Your task to perform on an android device: change keyboard looks Image 0: 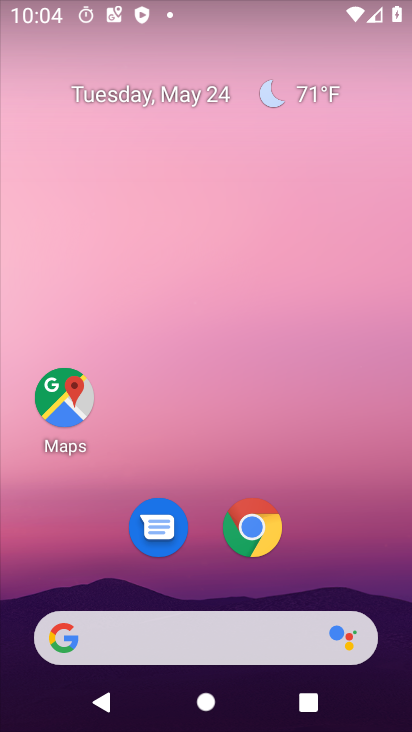
Step 0: drag from (199, 571) to (185, 104)
Your task to perform on an android device: change keyboard looks Image 1: 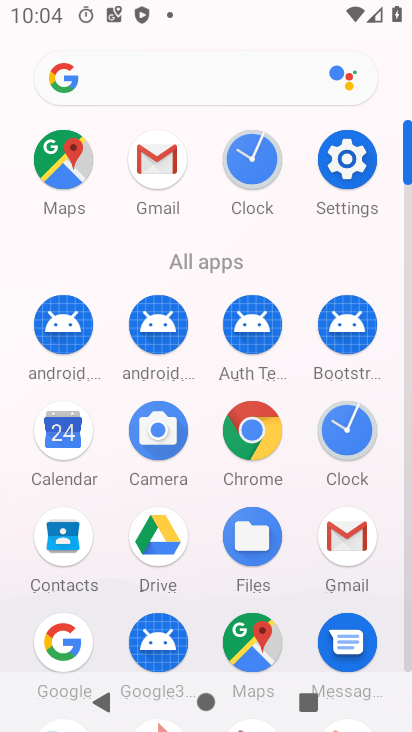
Step 1: click (349, 170)
Your task to perform on an android device: change keyboard looks Image 2: 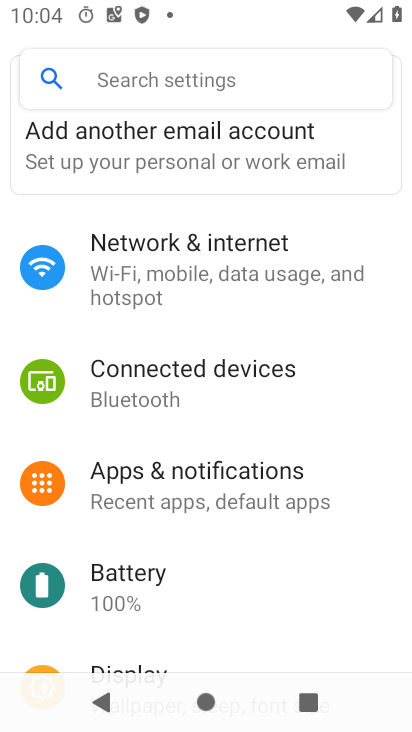
Step 2: drag from (275, 572) to (253, 54)
Your task to perform on an android device: change keyboard looks Image 3: 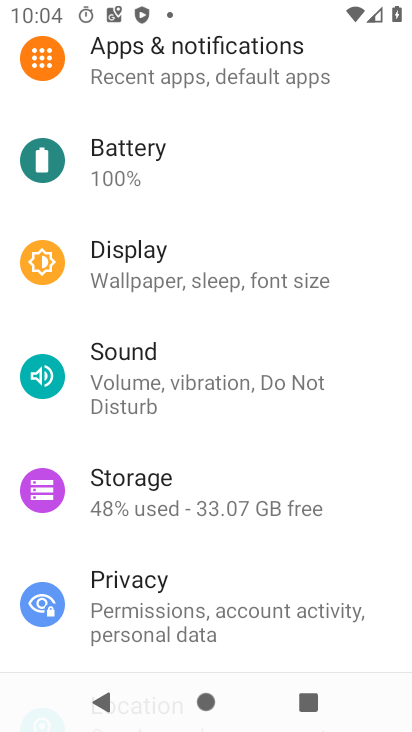
Step 3: drag from (199, 607) to (238, 71)
Your task to perform on an android device: change keyboard looks Image 4: 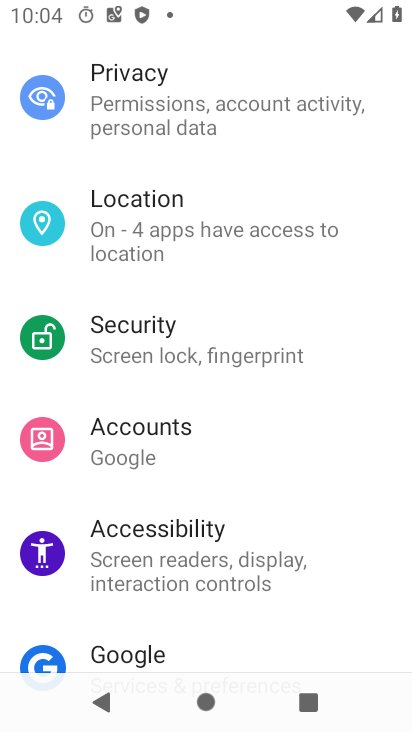
Step 4: drag from (242, 580) to (261, 110)
Your task to perform on an android device: change keyboard looks Image 5: 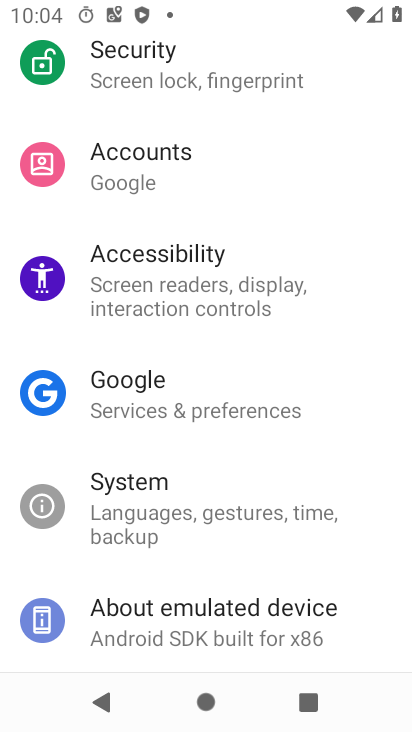
Step 5: click (130, 525)
Your task to perform on an android device: change keyboard looks Image 6: 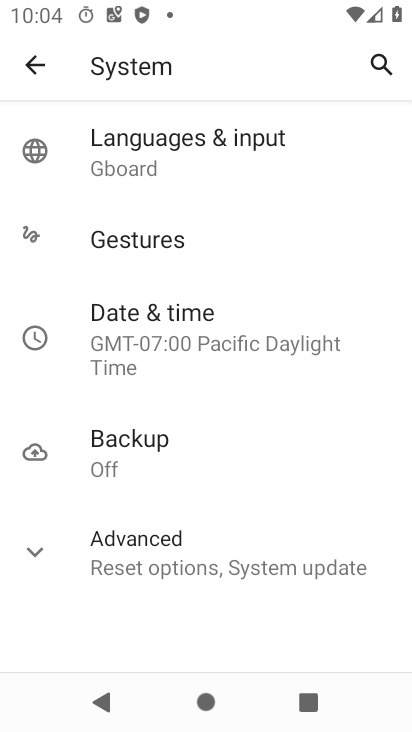
Step 6: click (163, 158)
Your task to perform on an android device: change keyboard looks Image 7: 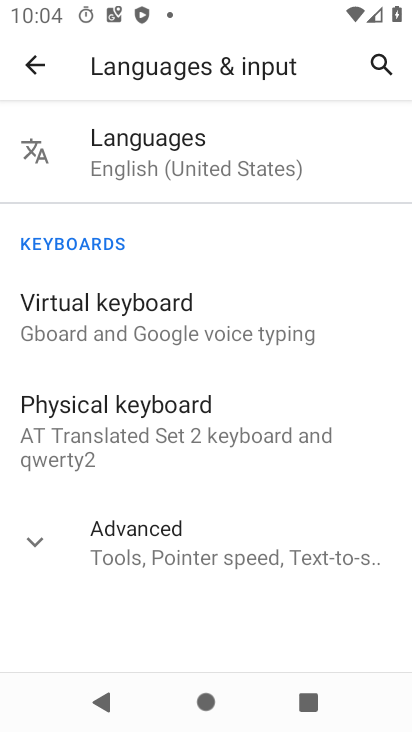
Step 7: drag from (177, 159) to (211, 248)
Your task to perform on an android device: change keyboard looks Image 8: 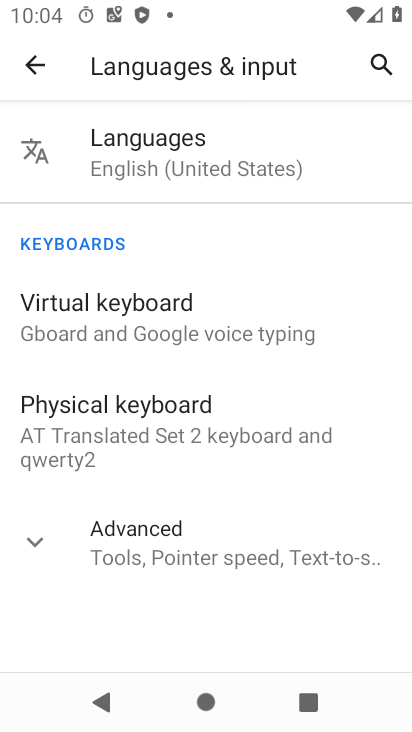
Step 8: click (164, 331)
Your task to perform on an android device: change keyboard looks Image 9: 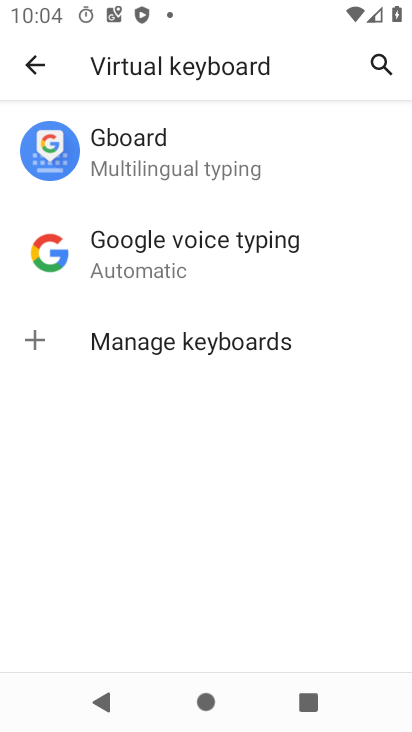
Step 9: click (167, 153)
Your task to perform on an android device: change keyboard looks Image 10: 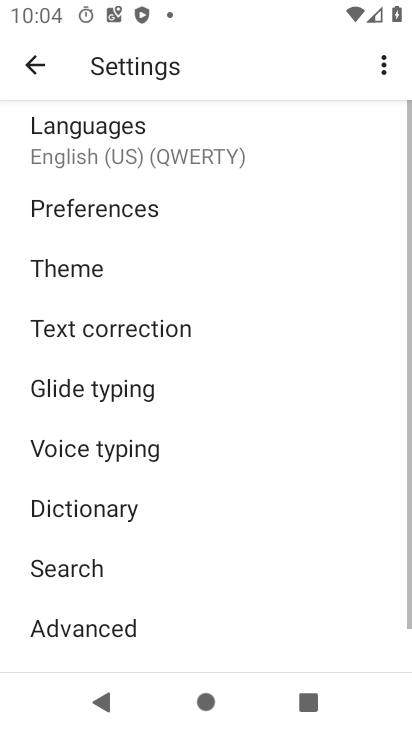
Step 10: click (123, 283)
Your task to perform on an android device: change keyboard looks Image 11: 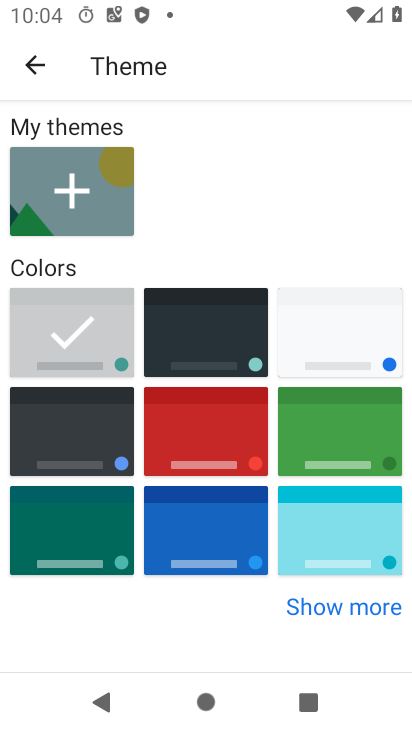
Step 11: click (203, 320)
Your task to perform on an android device: change keyboard looks Image 12: 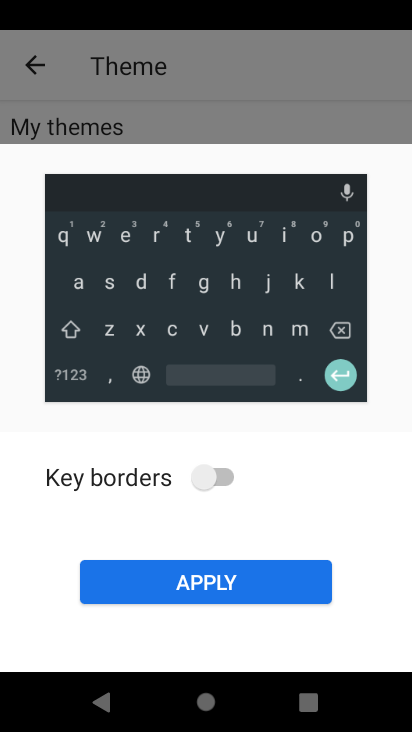
Step 12: click (159, 586)
Your task to perform on an android device: change keyboard looks Image 13: 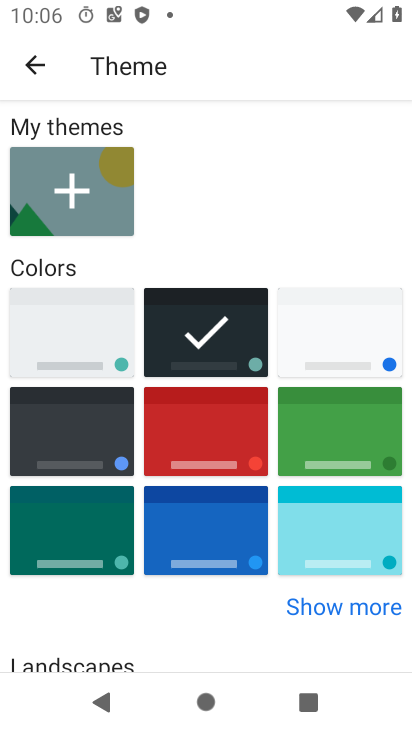
Step 13: task complete